Your task to perform on an android device: change the clock style Image 0: 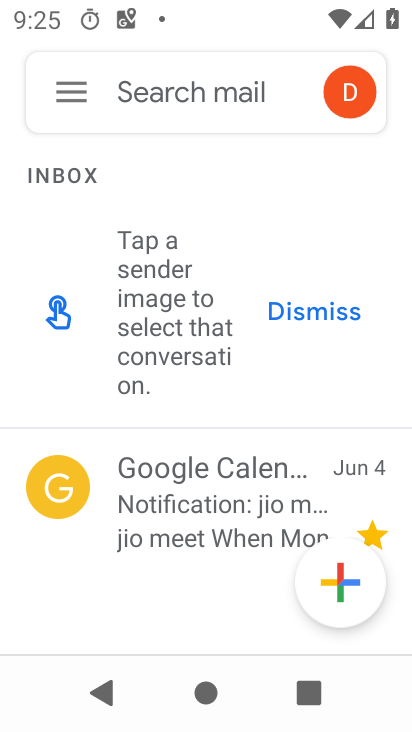
Step 0: drag from (227, 571) to (286, 165)
Your task to perform on an android device: change the clock style Image 1: 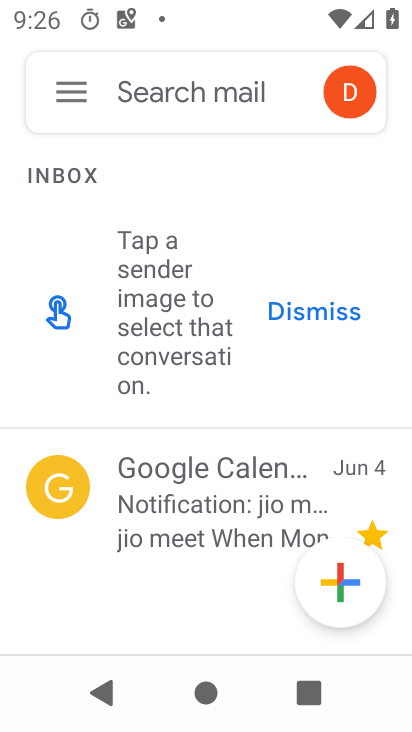
Step 1: press home button
Your task to perform on an android device: change the clock style Image 2: 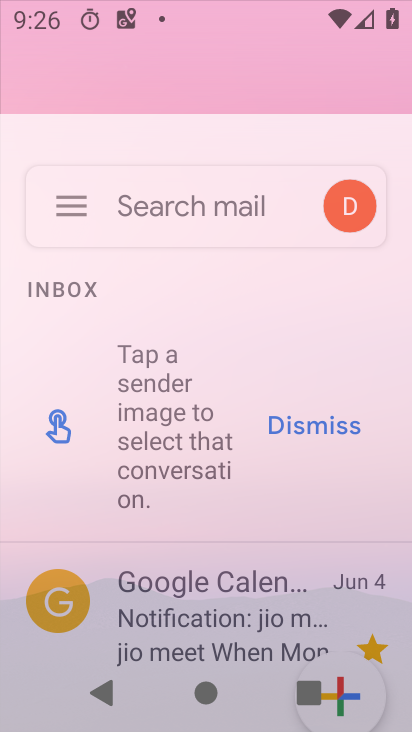
Step 2: drag from (182, 594) to (261, 267)
Your task to perform on an android device: change the clock style Image 3: 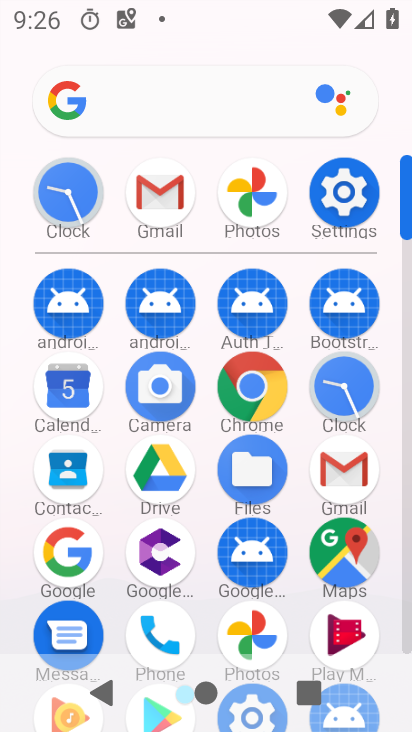
Step 3: click (340, 372)
Your task to perform on an android device: change the clock style Image 4: 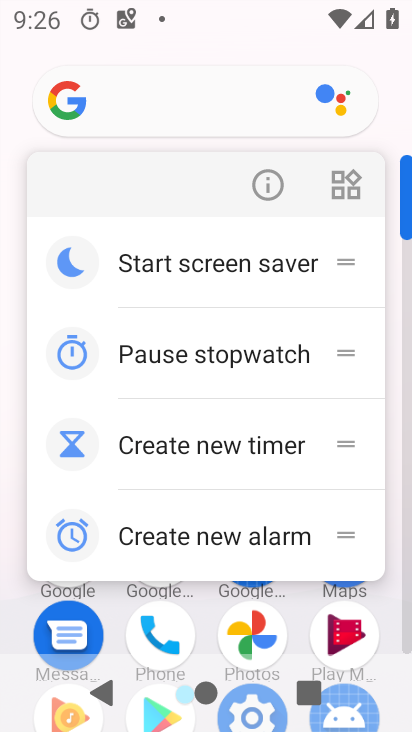
Step 4: click (271, 194)
Your task to perform on an android device: change the clock style Image 5: 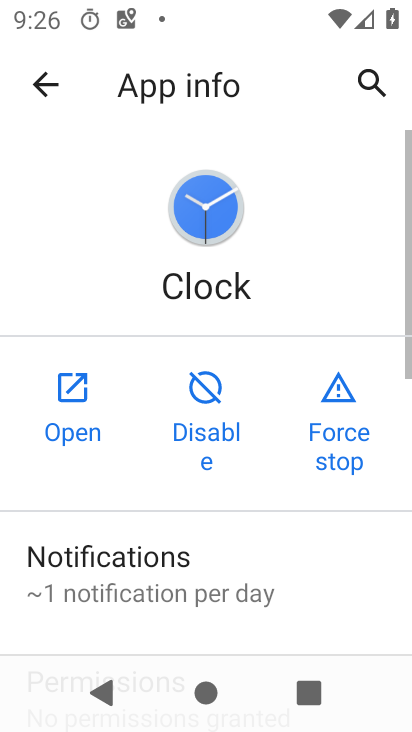
Step 5: click (88, 393)
Your task to perform on an android device: change the clock style Image 6: 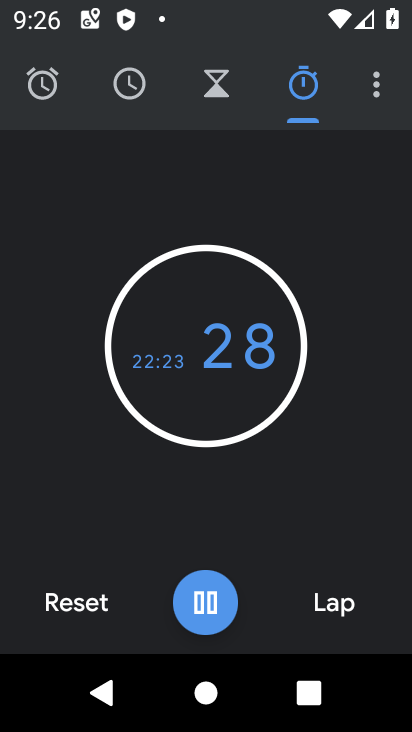
Step 6: click (368, 100)
Your task to perform on an android device: change the clock style Image 7: 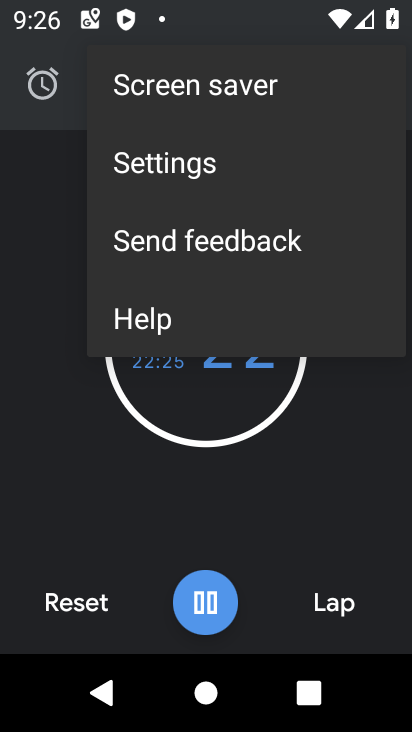
Step 7: click (201, 161)
Your task to perform on an android device: change the clock style Image 8: 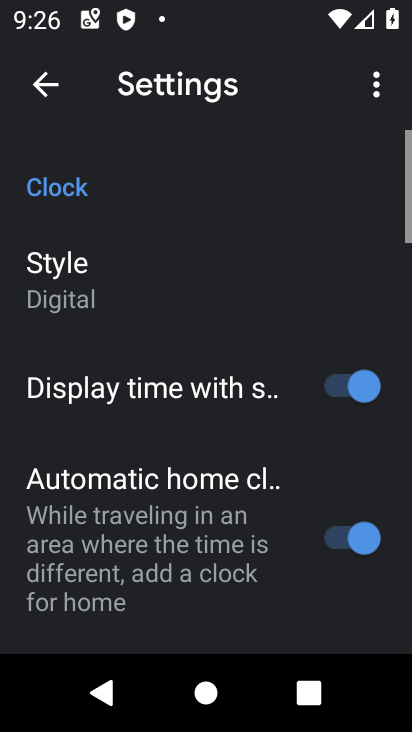
Step 8: drag from (282, 620) to (297, 179)
Your task to perform on an android device: change the clock style Image 9: 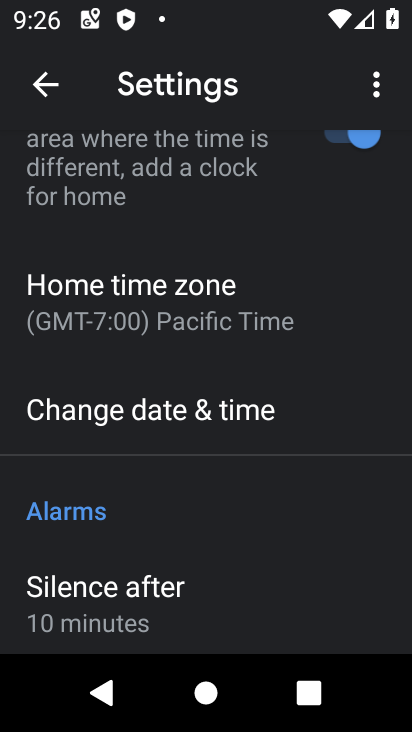
Step 9: drag from (224, 573) to (18, 562)
Your task to perform on an android device: change the clock style Image 10: 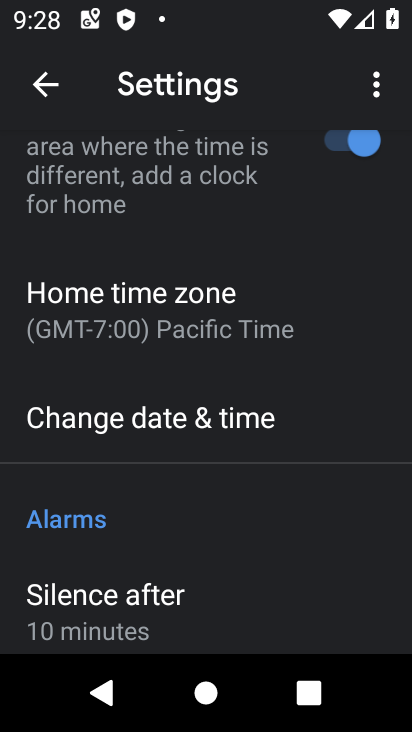
Step 10: drag from (177, 533) to (205, 163)
Your task to perform on an android device: change the clock style Image 11: 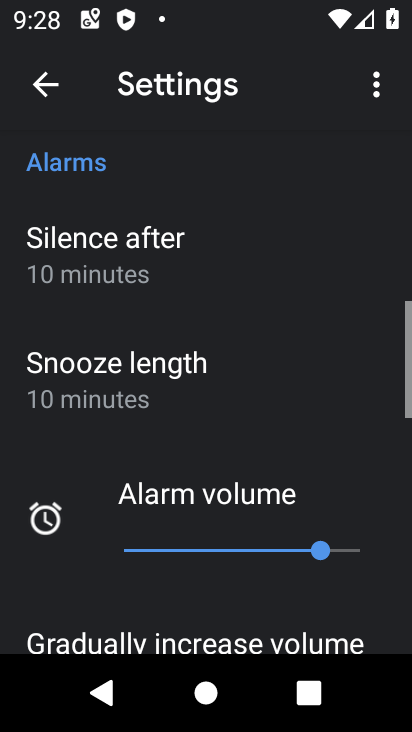
Step 11: drag from (215, 193) to (234, 714)
Your task to perform on an android device: change the clock style Image 12: 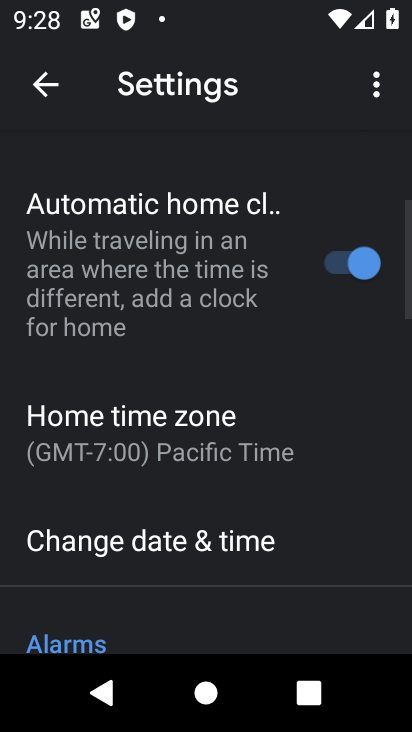
Step 12: drag from (205, 222) to (241, 713)
Your task to perform on an android device: change the clock style Image 13: 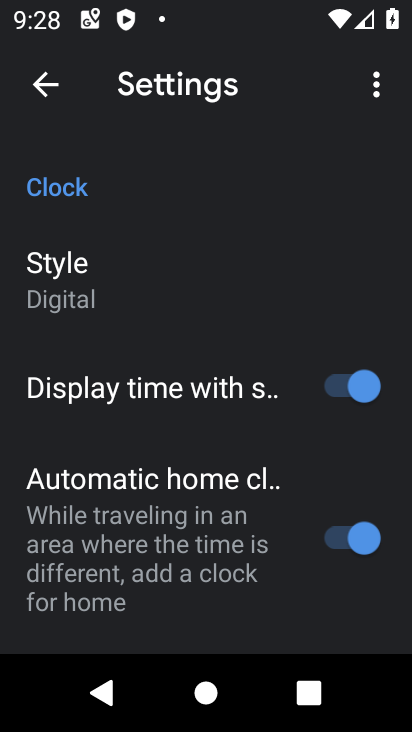
Step 13: click (149, 279)
Your task to perform on an android device: change the clock style Image 14: 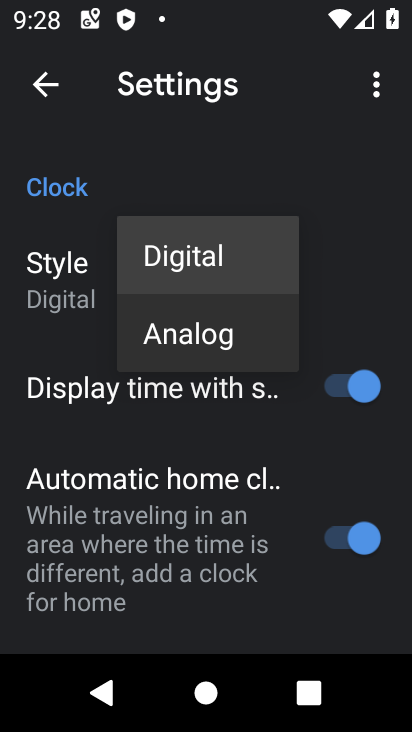
Step 14: click (198, 341)
Your task to perform on an android device: change the clock style Image 15: 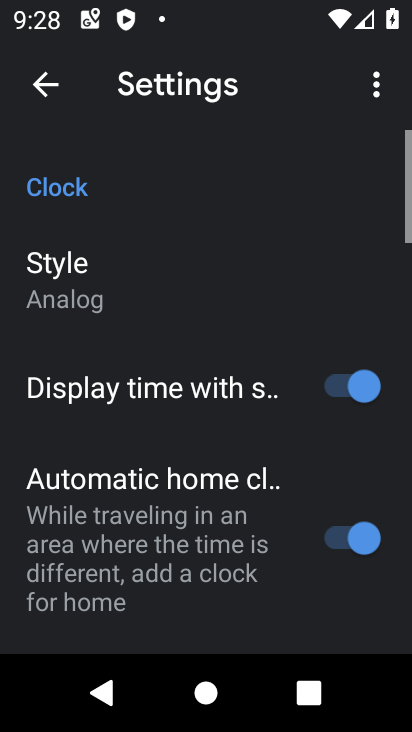
Step 15: task complete